Your task to perform on an android device: Open Youtube and go to the subscriptions tab Image 0: 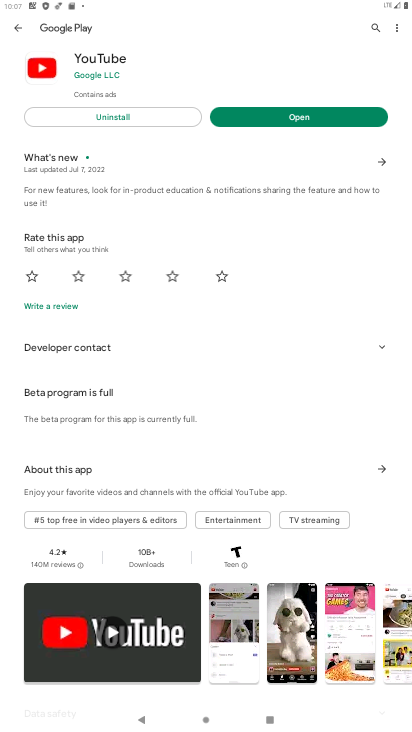
Step 0: click (325, 121)
Your task to perform on an android device: Open Youtube and go to the subscriptions tab Image 1: 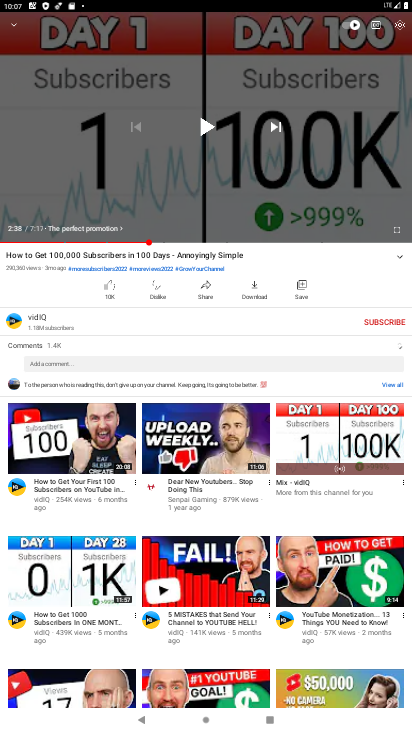
Step 1: drag from (187, 353) to (208, 676)
Your task to perform on an android device: Open Youtube and go to the subscriptions tab Image 2: 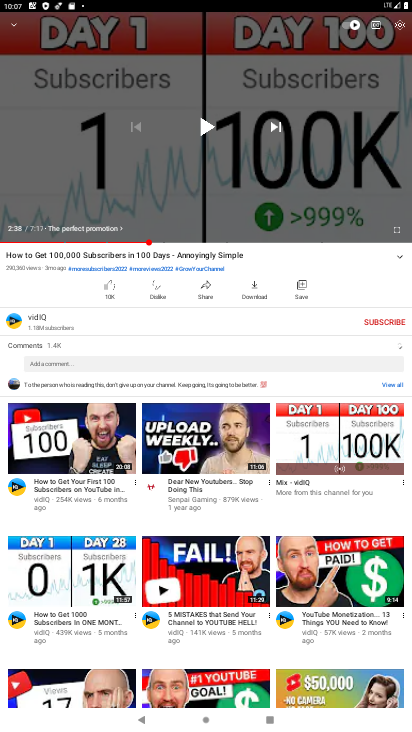
Step 2: drag from (330, 182) to (317, 595)
Your task to perform on an android device: Open Youtube and go to the subscriptions tab Image 3: 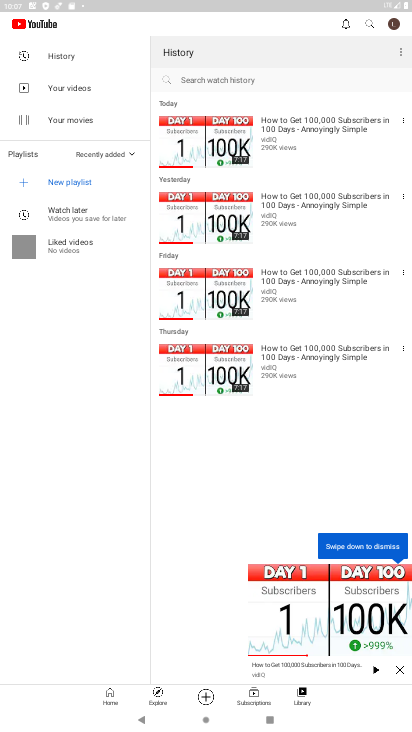
Step 3: click (252, 695)
Your task to perform on an android device: Open Youtube and go to the subscriptions tab Image 4: 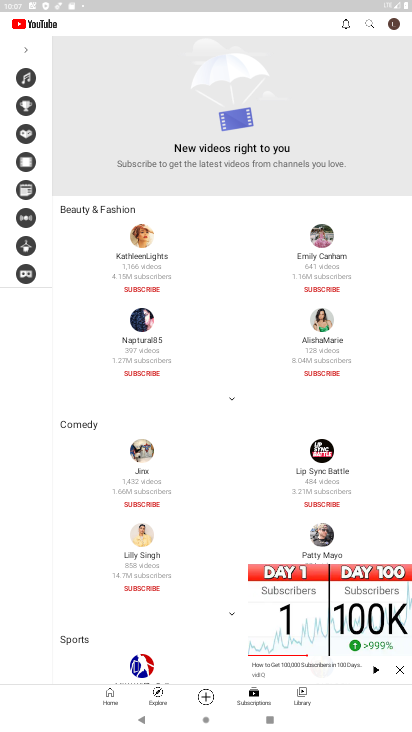
Step 4: click (372, 610)
Your task to perform on an android device: Open Youtube and go to the subscriptions tab Image 5: 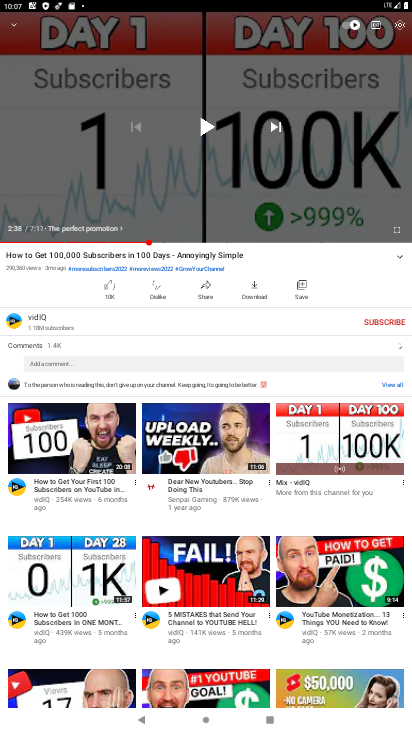
Step 5: task complete